Your task to perform on an android device: toggle notification dots Image 0: 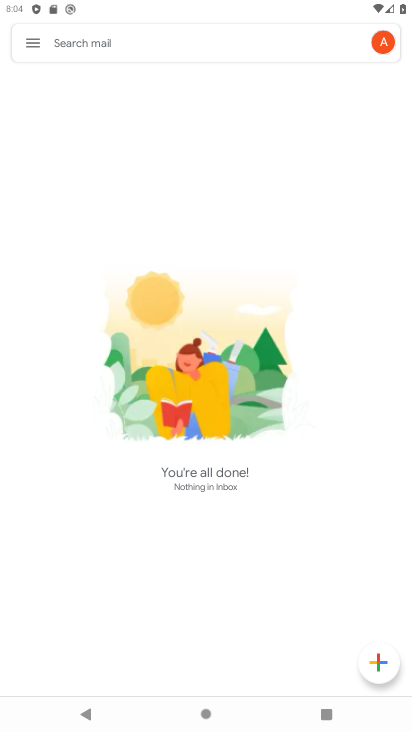
Step 0: press home button
Your task to perform on an android device: toggle notification dots Image 1: 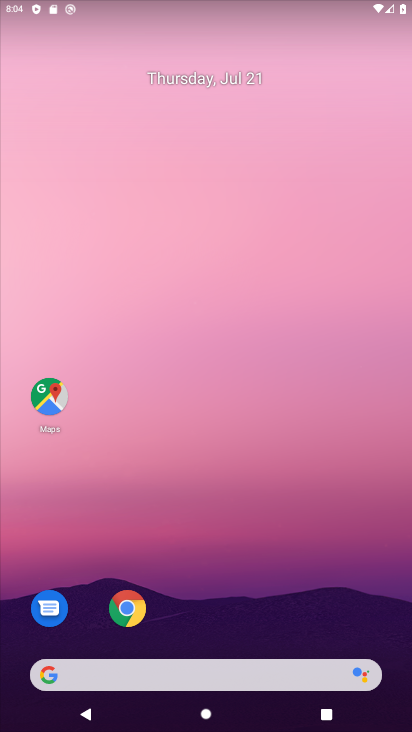
Step 1: drag from (38, 683) to (290, 64)
Your task to perform on an android device: toggle notification dots Image 2: 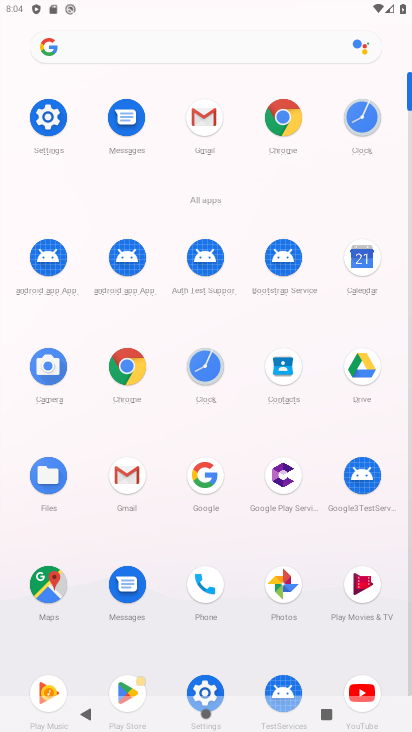
Step 2: click (195, 687)
Your task to perform on an android device: toggle notification dots Image 3: 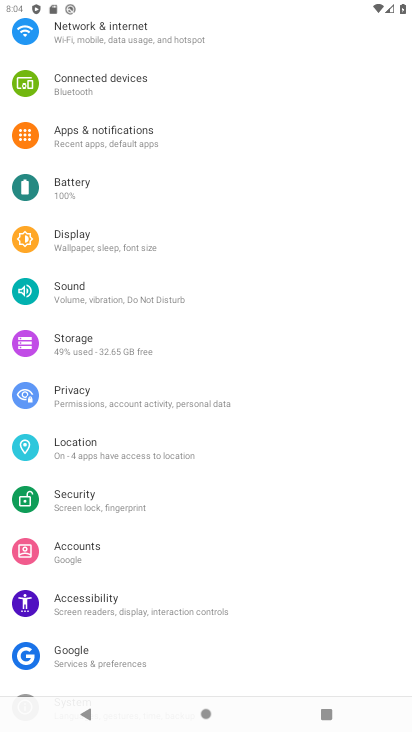
Step 3: click (147, 125)
Your task to perform on an android device: toggle notification dots Image 4: 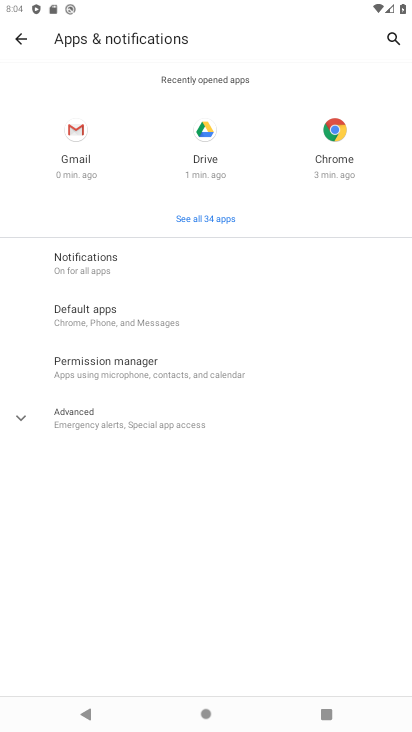
Step 4: click (109, 436)
Your task to perform on an android device: toggle notification dots Image 5: 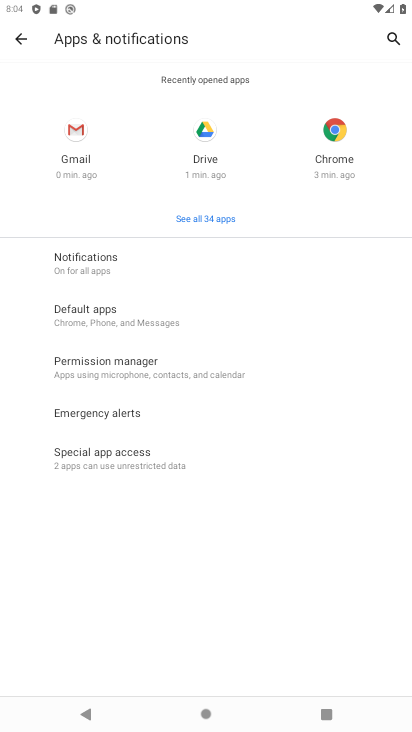
Step 5: click (101, 466)
Your task to perform on an android device: toggle notification dots Image 6: 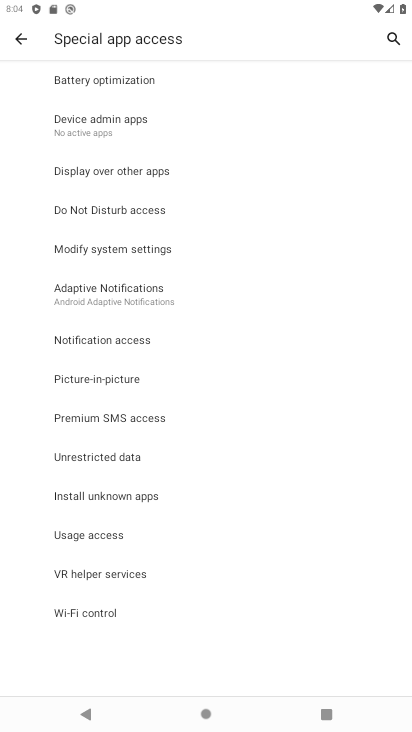
Step 6: click (14, 38)
Your task to perform on an android device: toggle notification dots Image 7: 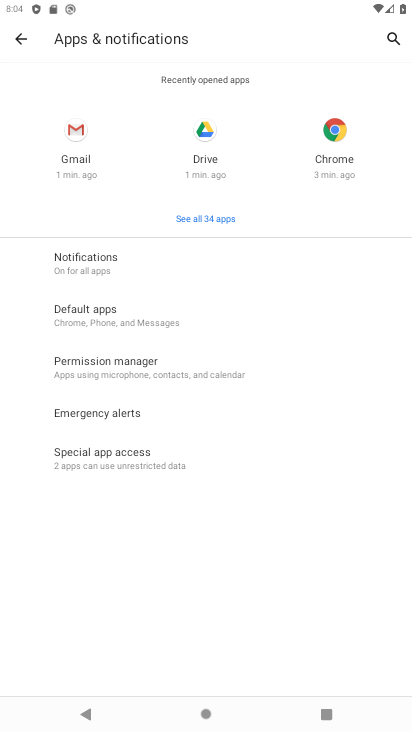
Step 7: click (120, 313)
Your task to perform on an android device: toggle notification dots Image 8: 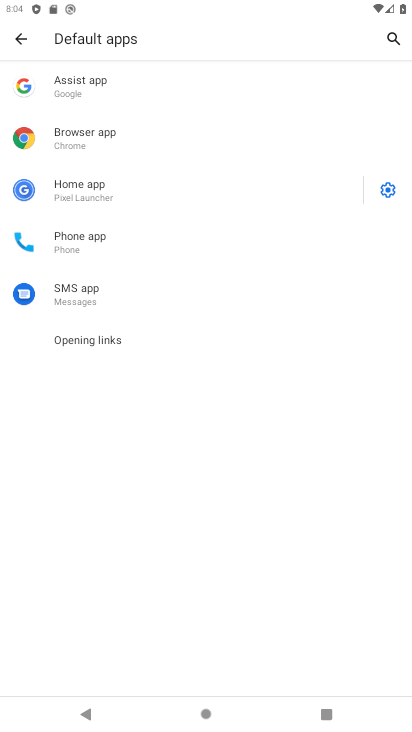
Step 8: click (21, 36)
Your task to perform on an android device: toggle notification dots Image 9: 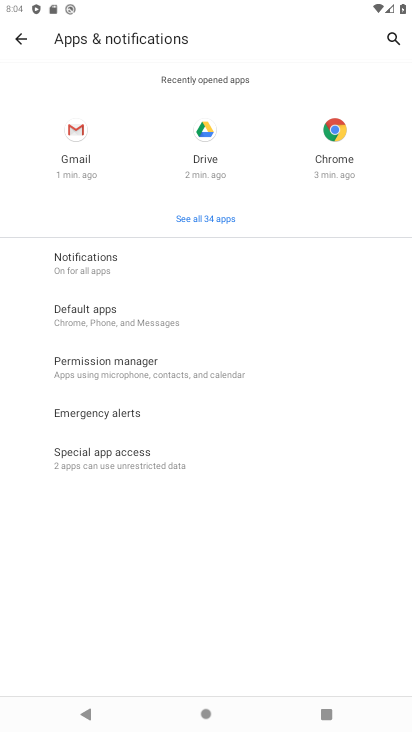
Step 9: click (73, 260)
Your task to perform on an android device: toggle notification dots Image 10: 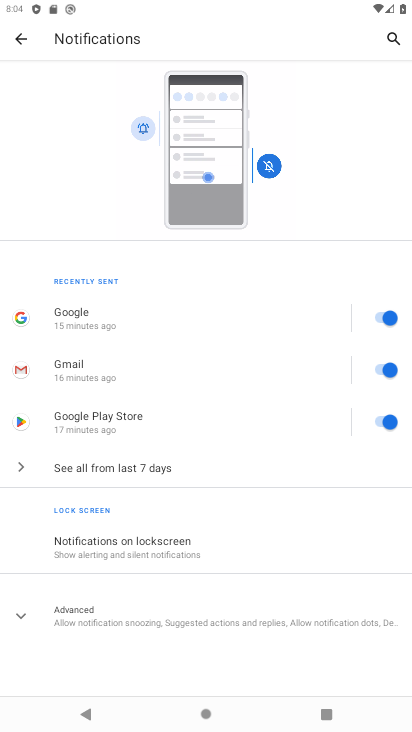
Step 10: click (107, 602)
Your task to perform on an android device: toggle notification dots Image 11: 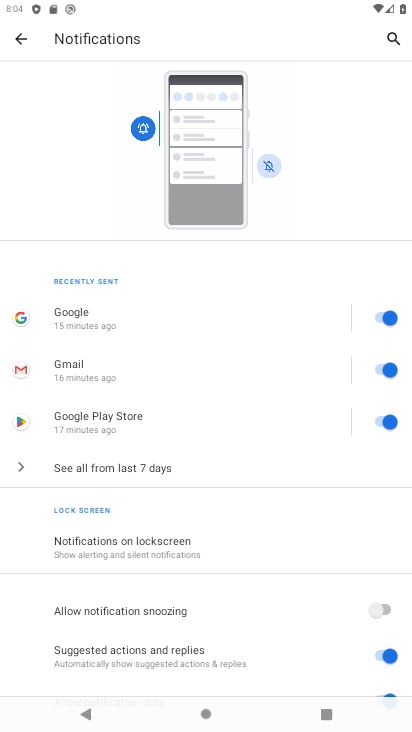
Step 11: task complete